Your task to perform on an android device: set the timer Image 0: 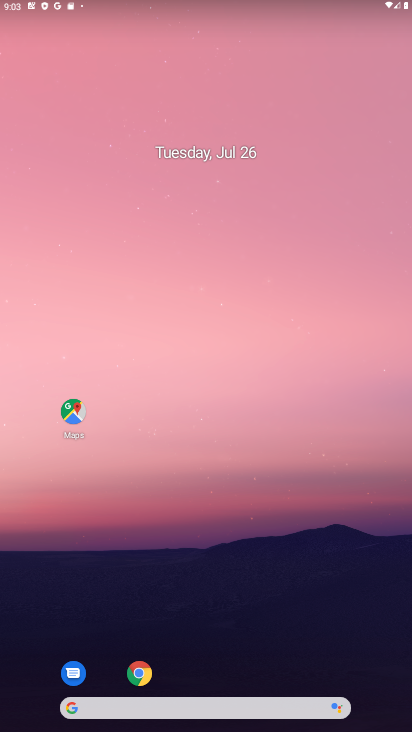
Step 0: drag from (225, 614) to (229, 319)
Your task to perform on an android device: set the timer Image 1: 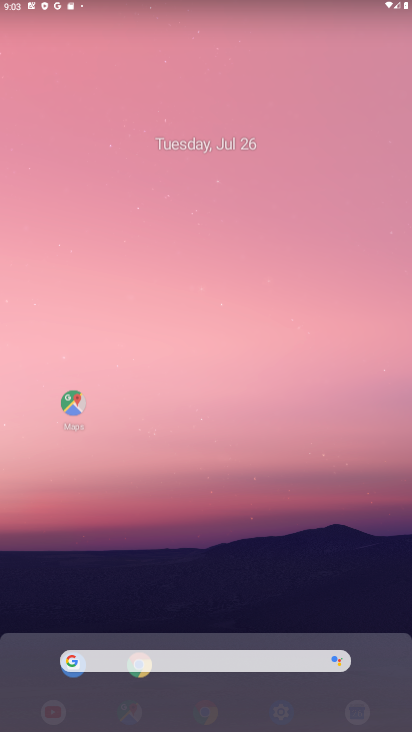
Step 1: click (265, 188)
Your task to perform on an android device: set the timer Image 2: 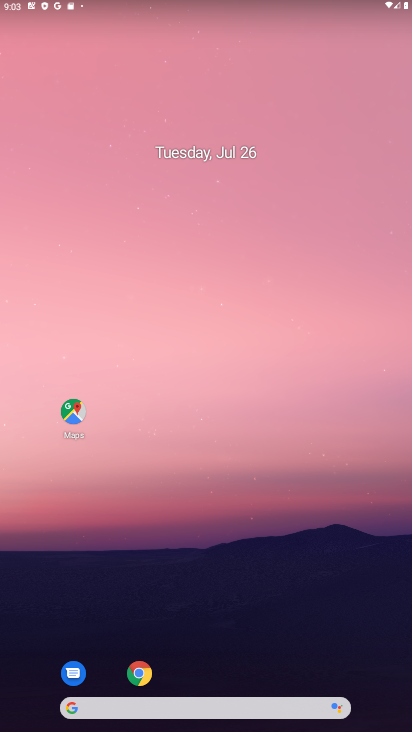
Step 2: drag from (259, 549) to (226, 218)
Your task to perform on an android device: set the timer Image 3: 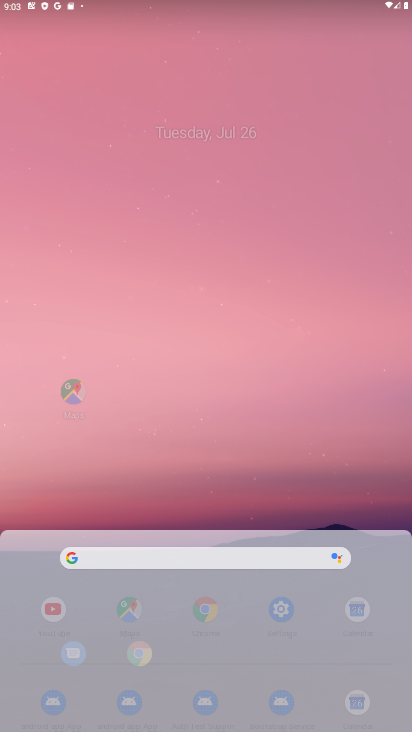
Step 3: drag from (249, 283) to (249, 202)
Your task to perform on an android device: set the timer Image 4: 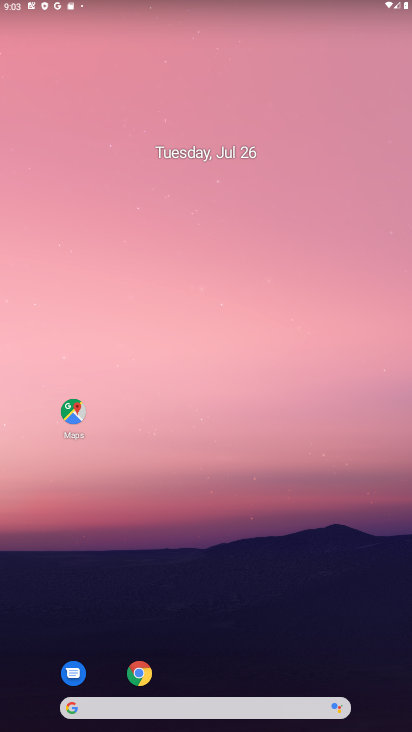
Step 4: drag from (256, 585) to (224, 150)
Your task to perform on an android device: set the timer Image 5: 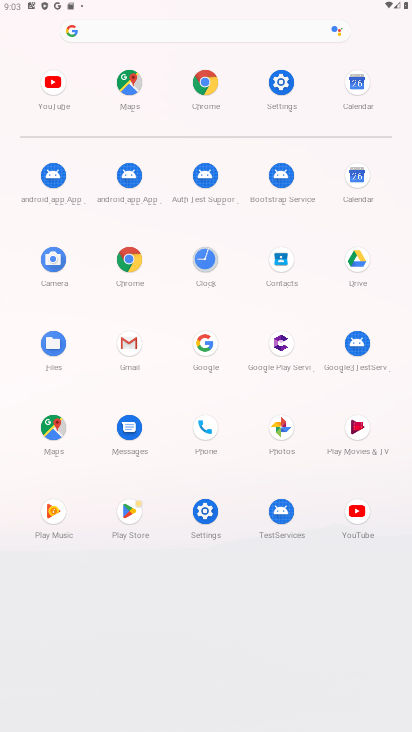
Step 5: click (209, 262)
Your task to perform on an android device: set the timer Image 6: 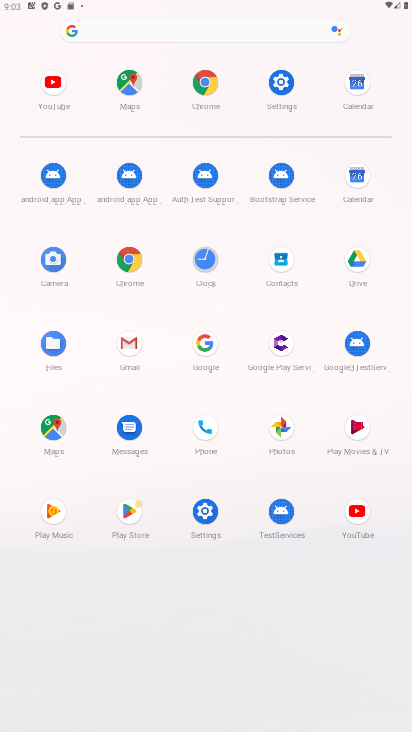
Step 6: click (210, 261)
Your task to perform on an android device: set the timer Image 7: 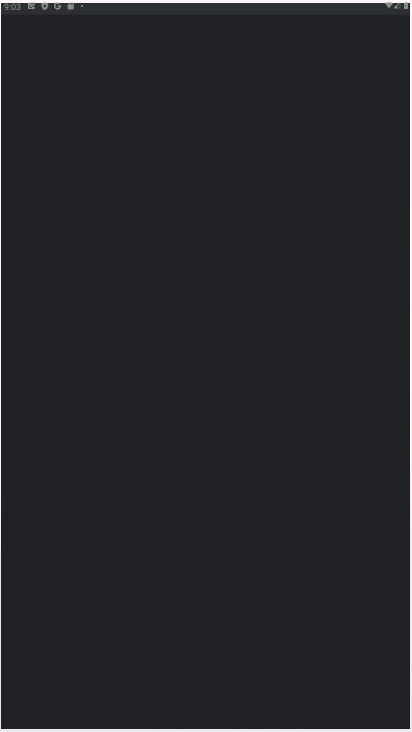
Step 7: click (211, 259)
Your task to perform on an android device: set the timer Image 8: 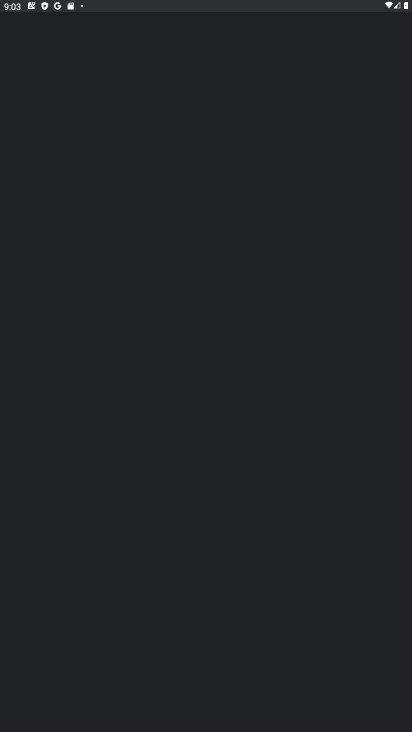
Step 8: click (214, 258)
Your task to perform on an android device: set the timer Image 9: 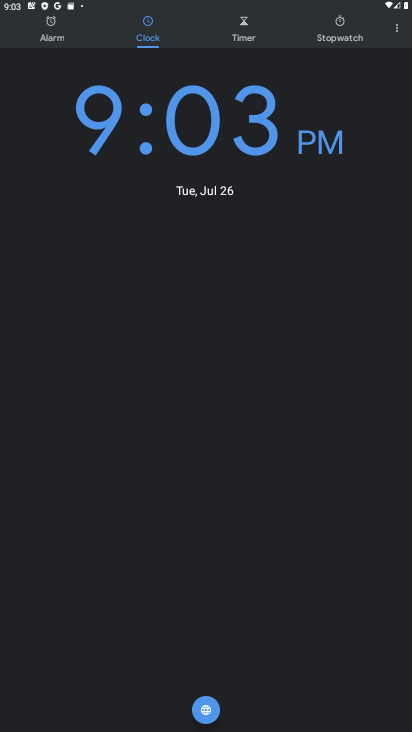
Step 9: click (201, 365)
Your task to perform on an android device: set the timer Image 10: 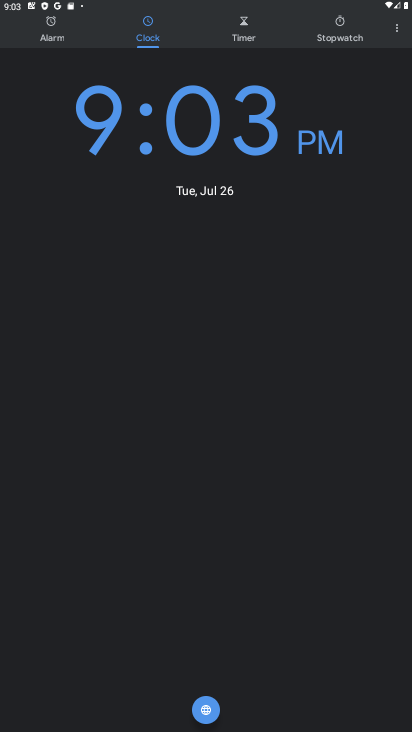
Step 10: click (404, 24)
Your task to perform on an android device: set the timer Image 11: 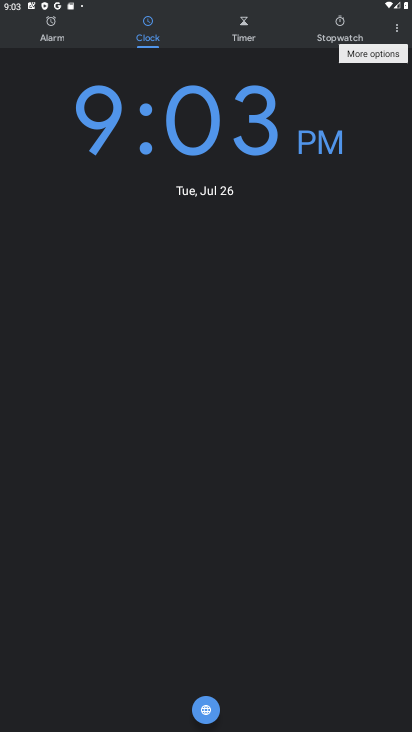
Step 11: click (403, 28)
Your task to perform on an android device: set the timer Image 12: 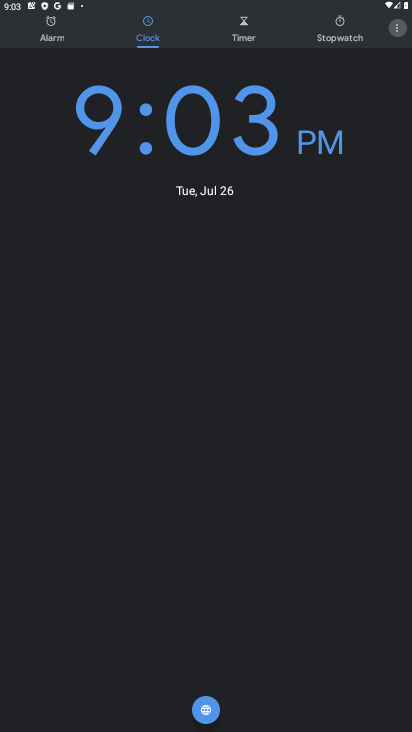
Step 12: click (403, 28)
Your task to perform on an android device: set the timer Image 13: 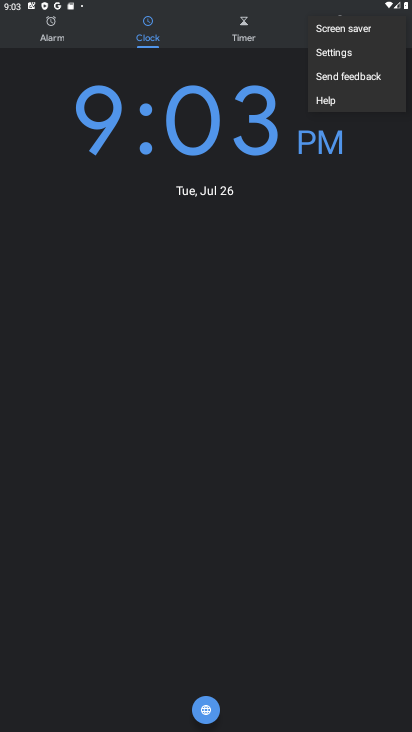
Step 13: click (403, 28)
Your task to perform on an android device: set the timer Image 14: 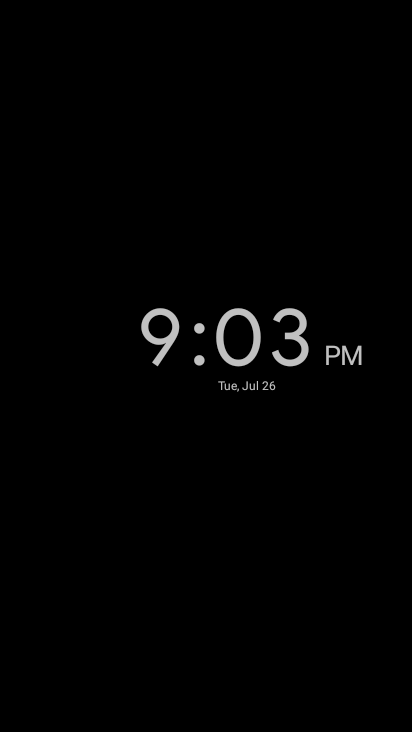
Step 14: press back button
Your task to perform on an android device: set the timer Image 15: 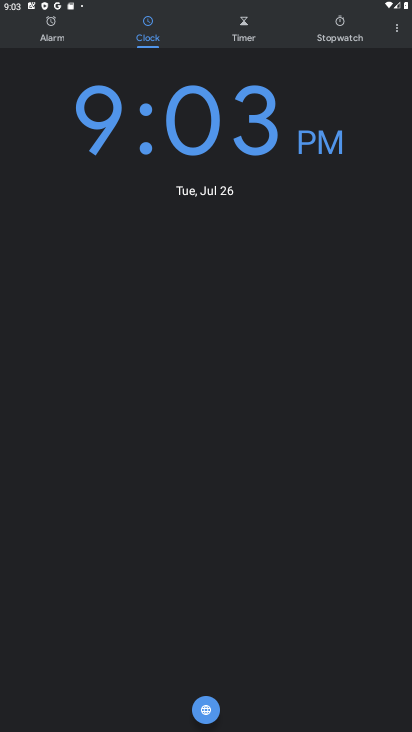
Step 15: click (391, 23)
Your task to perform on an android device: set the timer Image 16: 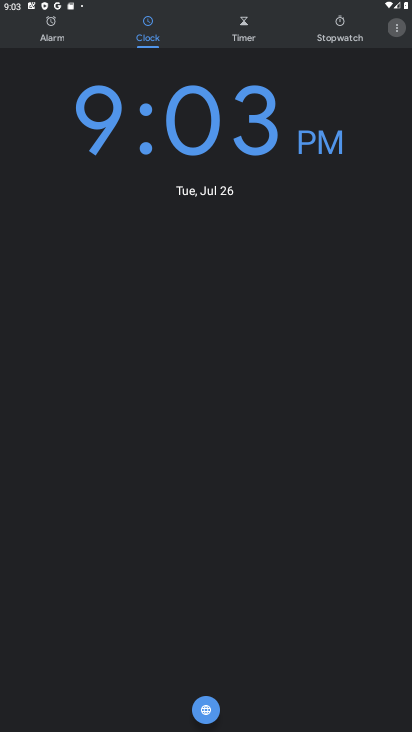
Step 16: click (391, 23)
Your task to perform on an android device: set the timer Image 17: 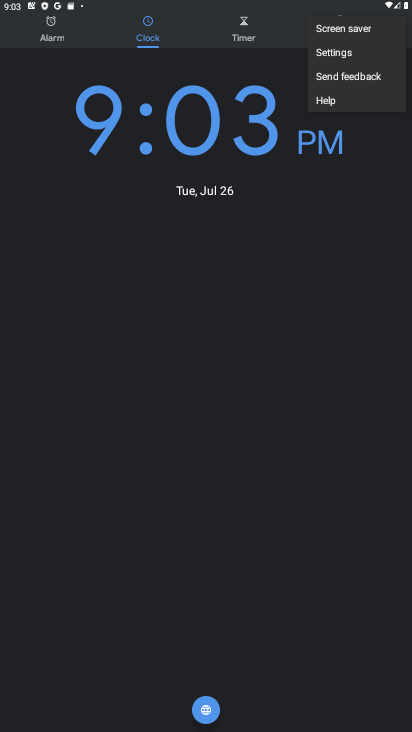
Step 17: click (320, 59)
Your task to perform on an android device: set the timer Image 18: 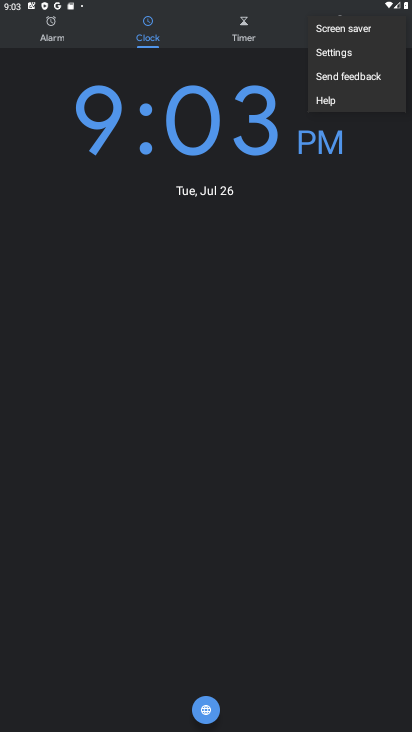
Step 18: click (320, 59)
Your task to perform on an android device: set the timer Image 19: 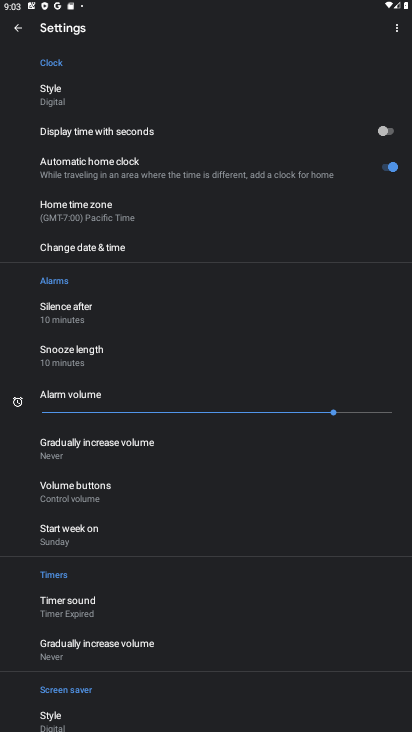
Step 19: click (19, 29)
Your task to perform on an android device: set the timer Image 20: 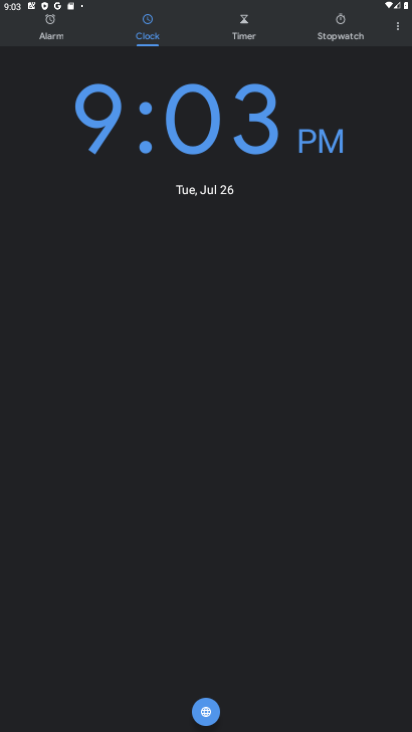
Step 20: click (22, 29)
Your task to perform on an android device: set the timer Image 21: 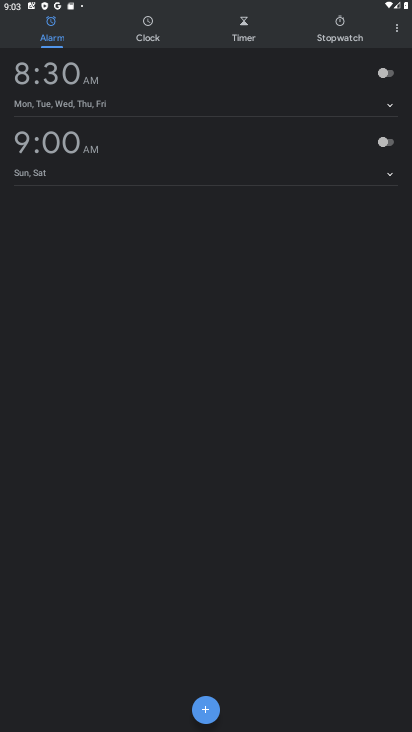
Step 21: click (246, 24)
Your task to perform on an android device: set the timer Image 22: 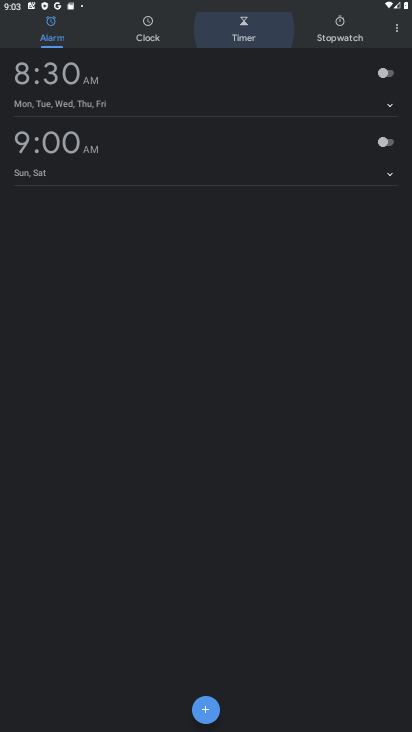
Step 22: click (245, 26)
Your task to perform on an android device: set the timer Image 23: 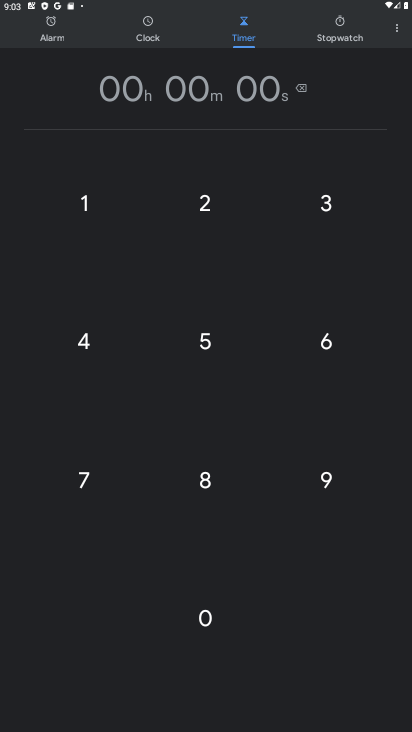
Step 23: click (205, 347)
Your task to perform on an android device: set the timer Image 24: 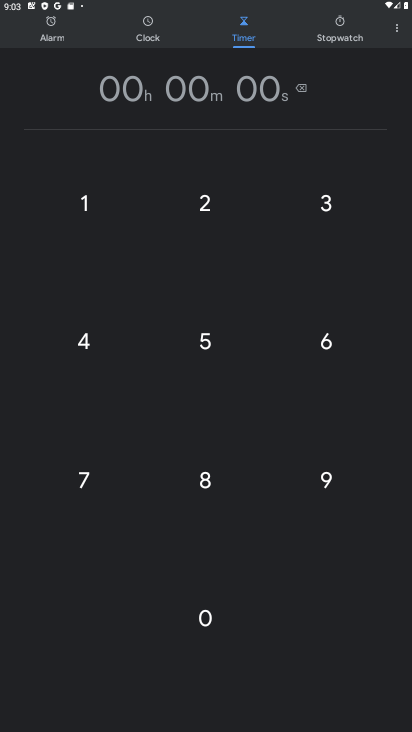
Step 24: click (208, 345)
Your task to perform on an android device: set the timer Image 25: 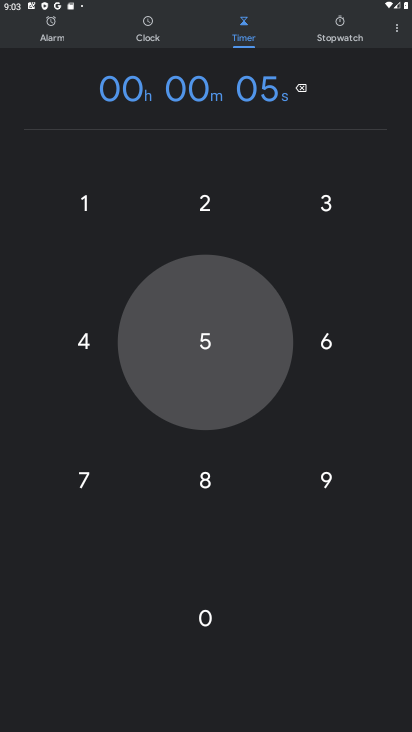
Step 25: click (209, 347)
Your task to perform on an android device: set the timer Image 26: 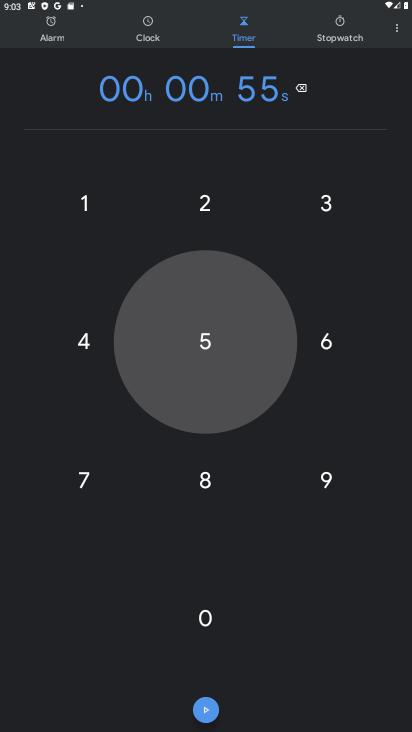
Step 26: click (209, 347)
Your task to perform on an android device: set the timer Image 27: 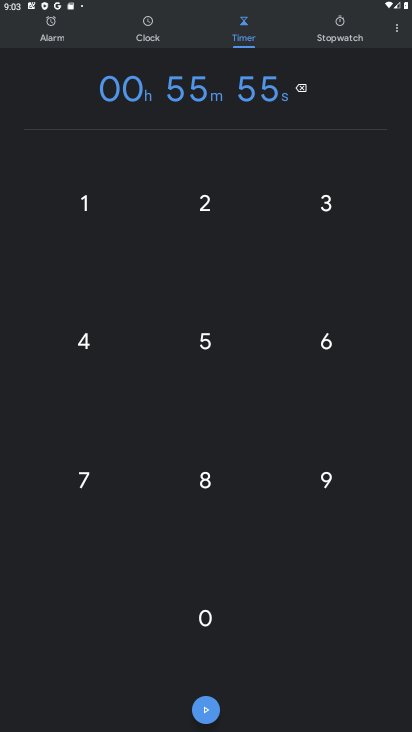
Step 27: task complete